Your task to perform on an android device: add a contact Image 0: 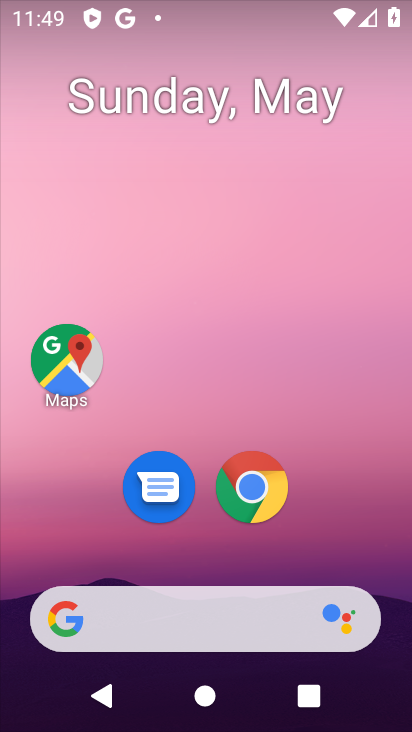
Step 0: drag from (210, 557) to (277, 11)
Your task to perform on an android device: add a contact Image 1: 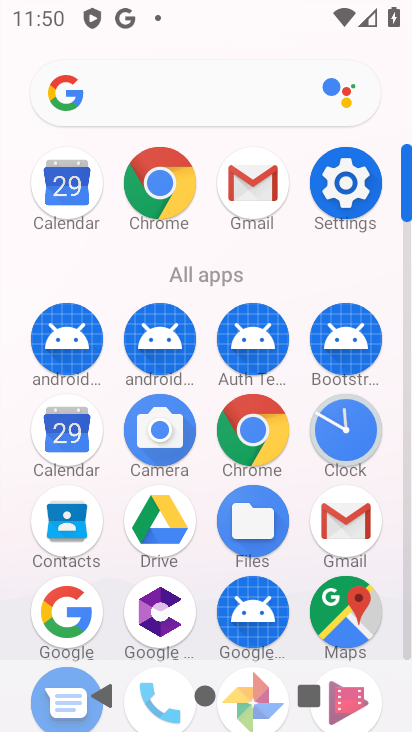
Step 1: click (63, 534)
Your task to perform on an android device: add a contact Image 2: 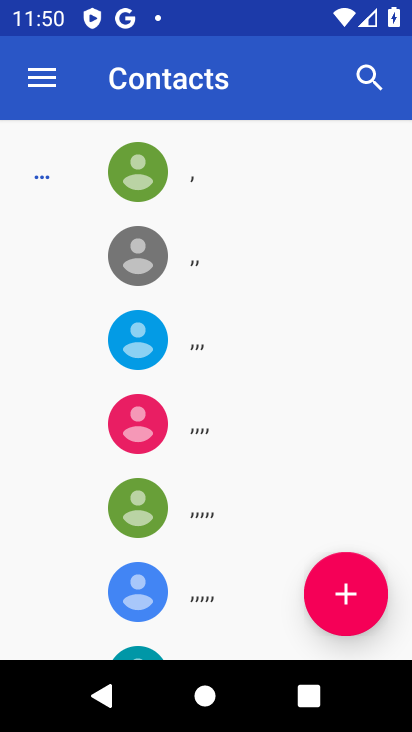
Step 2: click (343, 587)
Your task to perform on an android device: add a contact Image 3: 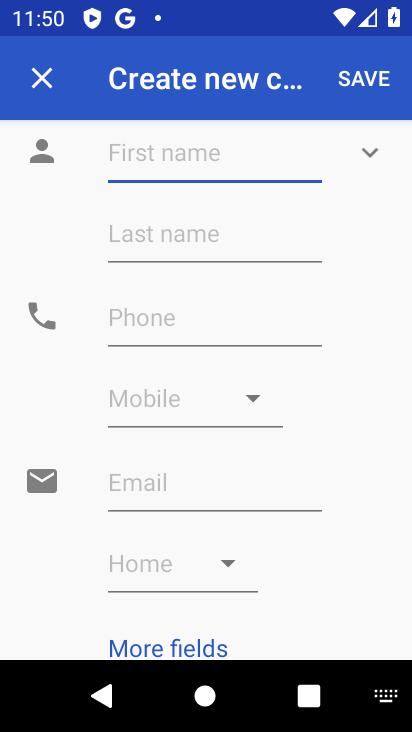
Step 3: type "yturfghjik"
Your task to perform on an android device: add a contact Image 4: 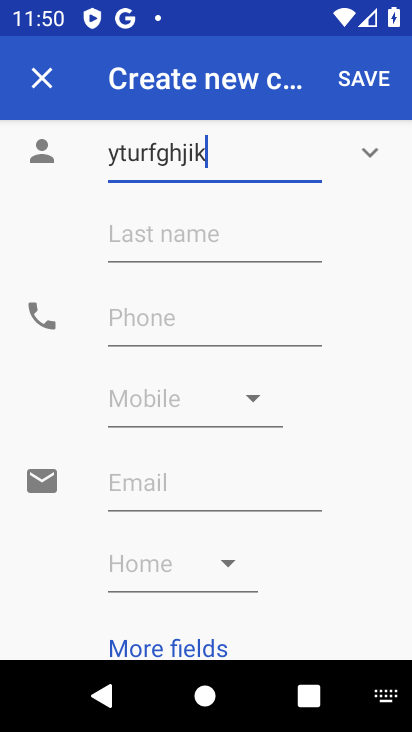
Step 4: click (143, 318)
Your task to perform on an android device: add a contact Image 5: 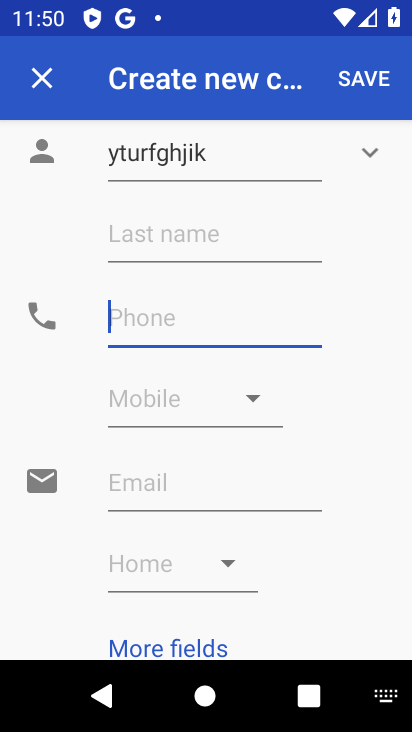
Step 5: type "9807654321"
Your task to perform on an android device: add a contact Image 6: 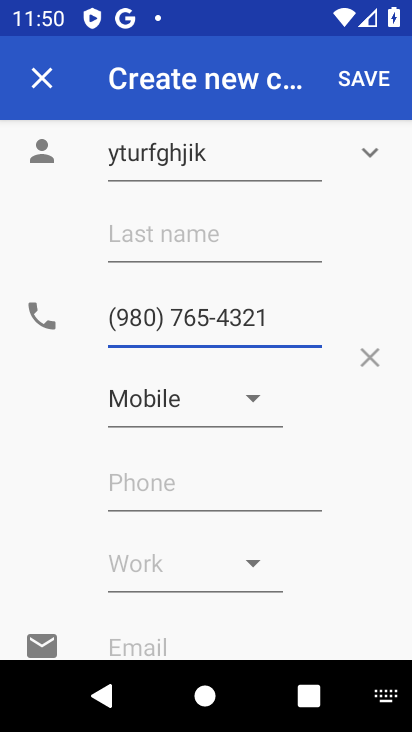
Step 6: click (363, 78)
Your task to perform on an android device: add a contact Image 7: 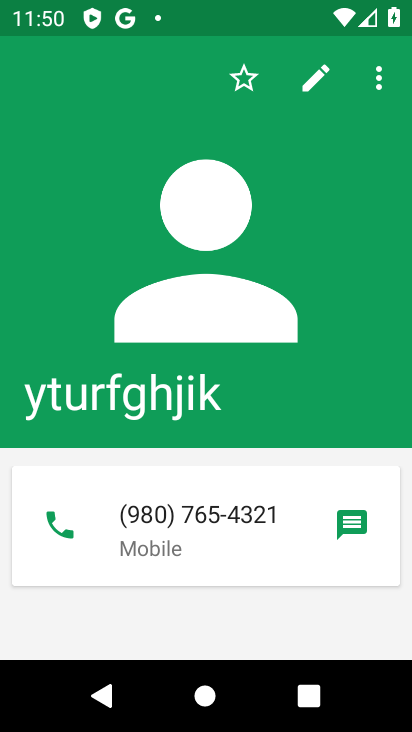
Step 7: task complete